Your task to perform on an android device: toggle data saver in the chrome app Image 0: 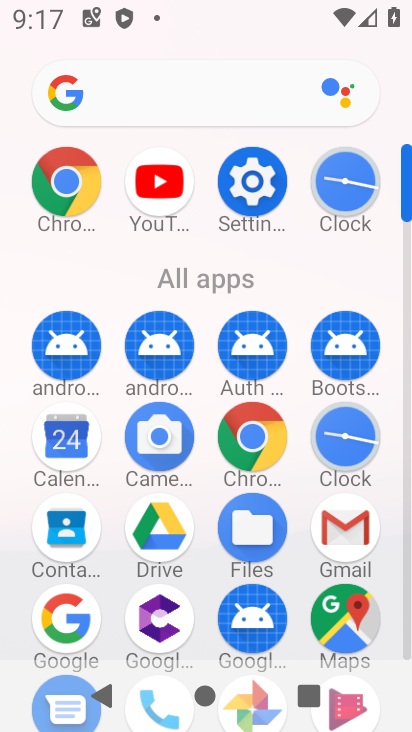
Step 0: press home button
Your task to perform on an android device: toggle data saver in the chrome app Image 1: 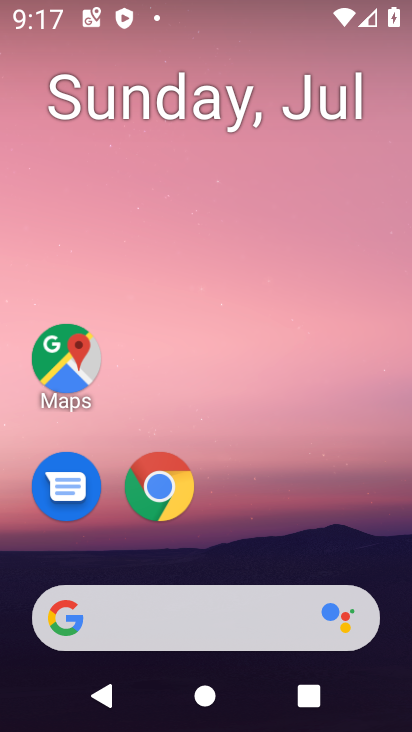
Step 1: drag from (332, 544) to (366, 98)
Your task to perform on an android device: toggle data saver in the chrome app Image 2: 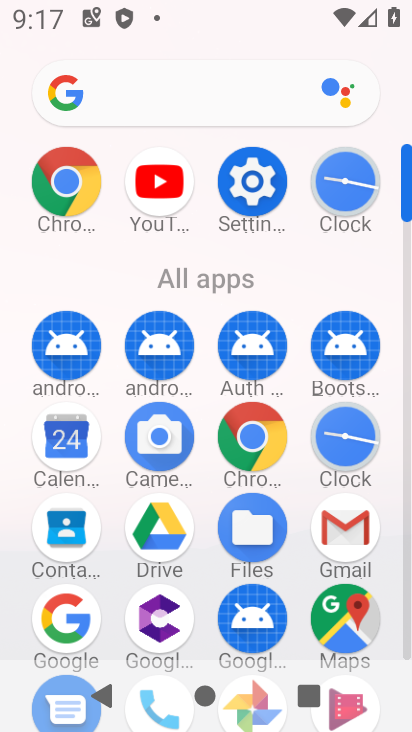
Step 2: click (255, 435)
Your task to perform on an android device: toggle data saver in the chrome app Image 3: 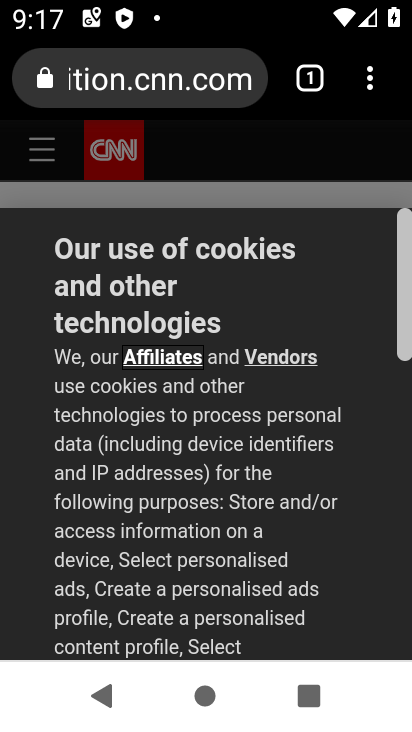
Step 3: click (367, 90)
Your task to perform on an android device: toggle data saver in the chrome app Image 4: 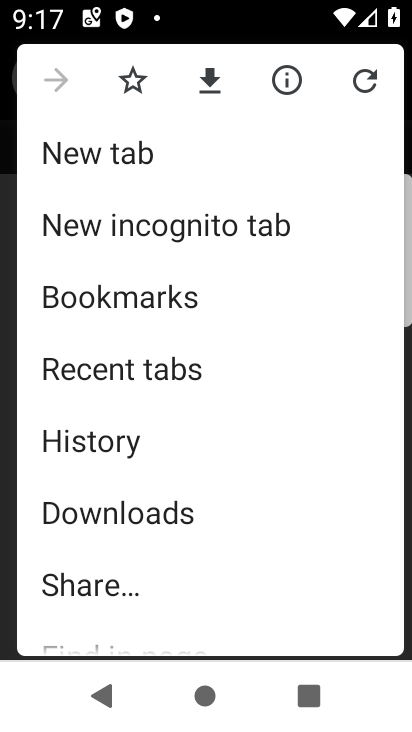
Step 4: drag from (318, 442) to (320, 332)
Your task to perform on an android device: toggle data saver in the chrome app Image 5: 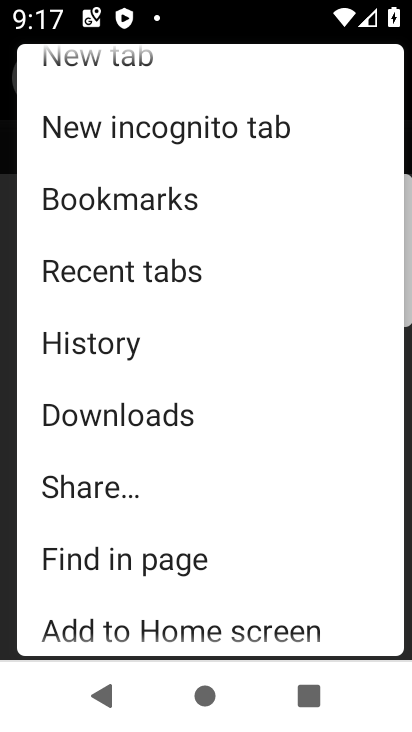
Step 5: drag from (309, 535) to (319, 420)
Your task to perform on an android device: toggle data saver in the chrome app Image 6: 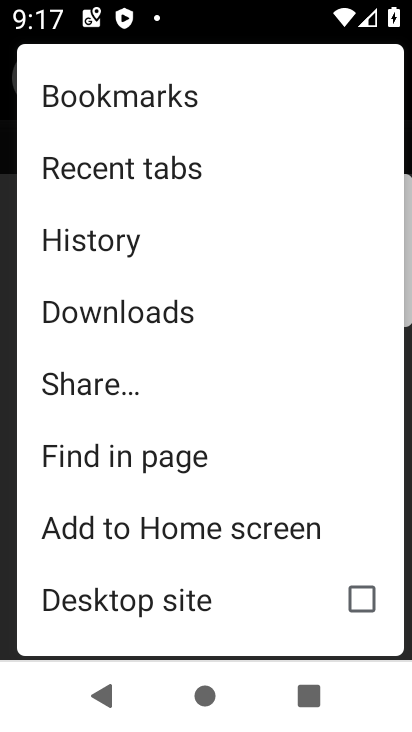
Step 6: drag from (279, 583) to (286, 442)
Your task to perform on an android device: toggle data saver in the chrome app Image 7: 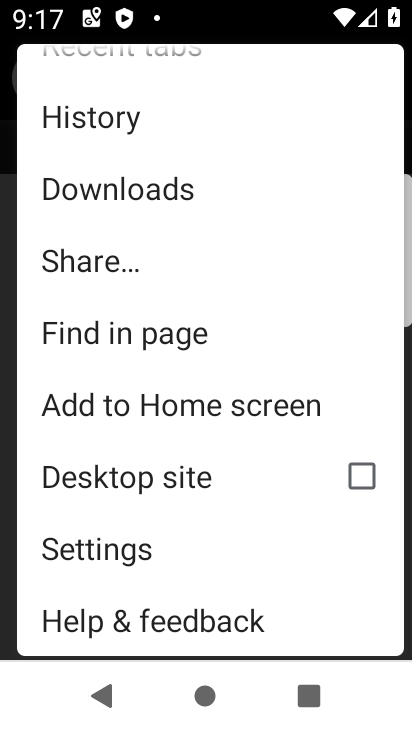
Step 7: drag from (262, 575) to (266, 445)
Your task to perform on an android device: toggle data saver in the chrome app Image 8: 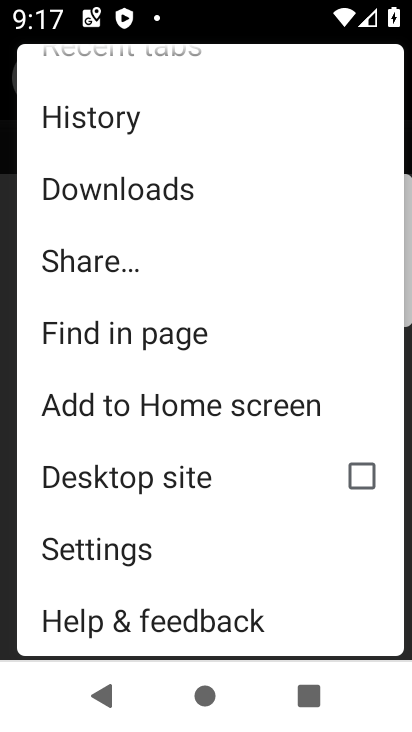
Step 8: click (145, 562)
Your task to perform on an android device: toggle data saver in the chrome app Image 9: 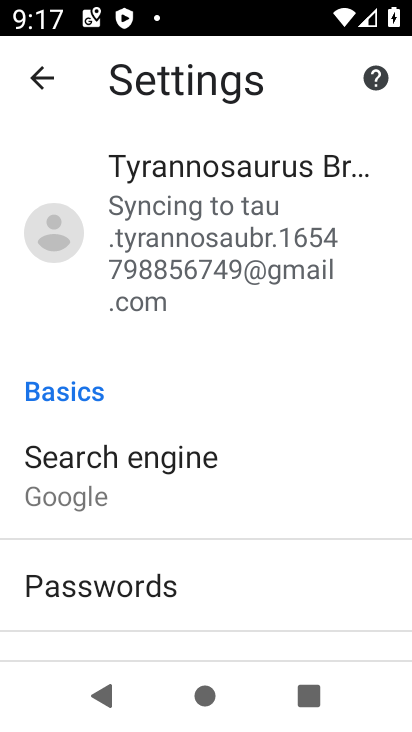
Step 9: drag from (308, 545) to (311, 460)
Your task to perform on an android device: toggle data saver in the chrome app Image 10: 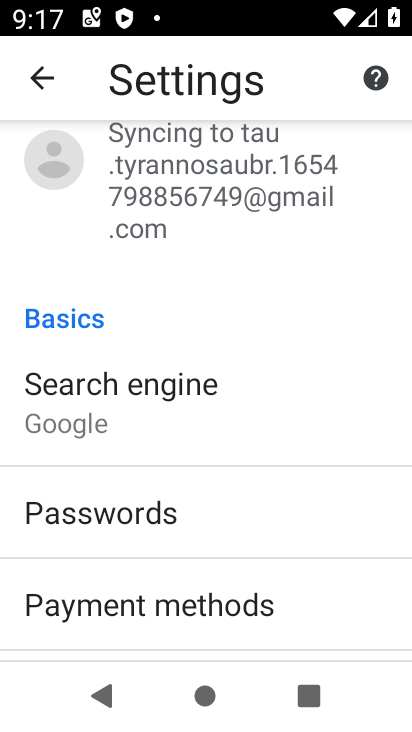
Step 10: drag from (329, 582) to (326, 484)
Your task to perform on an android device: toggle data saver in the chrome app Image 11: 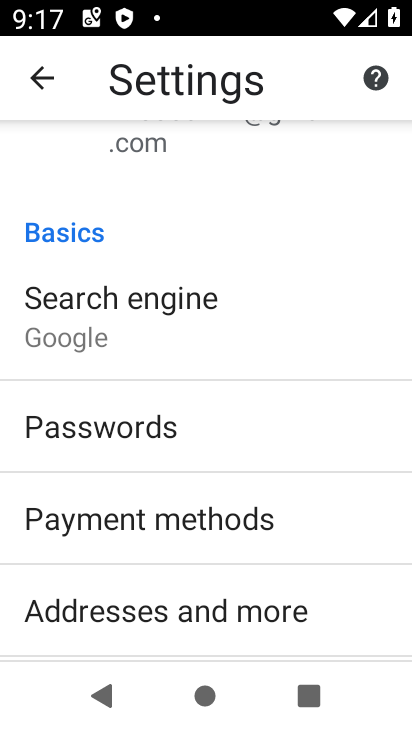
Step 11: drag from (327, 577) to (327, 469)
Your task to perform on an android device: toggle data saver in the chrome app Image 12: 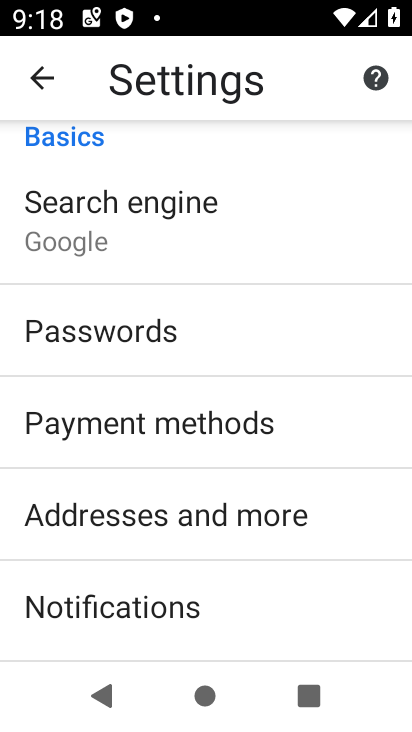
Step 12: drag from (344, 570) to (331, 426)
Your task to perform on an android device: toggle data saver in the chrome app Image 13: 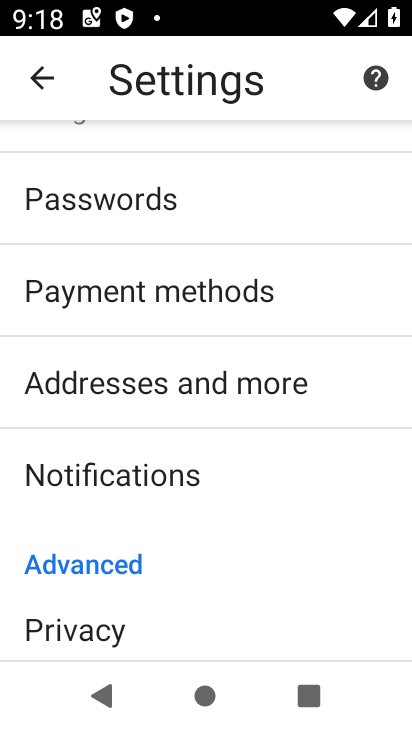
Step 13: drag from (303, 549) to (311, 412)
Your task to perform on an android device: toggle data saver in the chrome app Image 14: 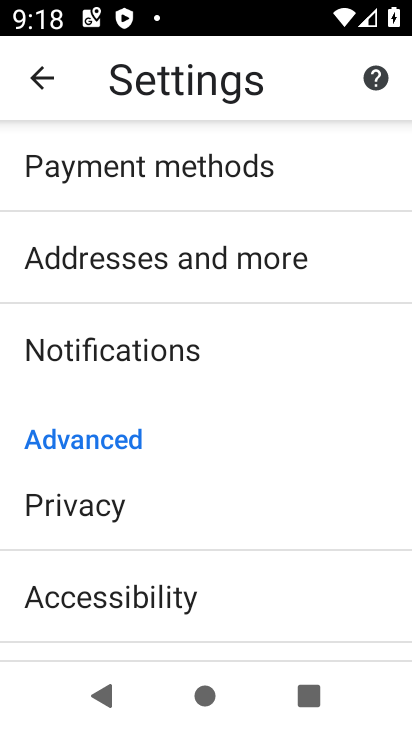
Step 14: drag from (287, 590) to (290, 460)
Your task to perform on an android device: toggle data saver in the chrome app Image 15: 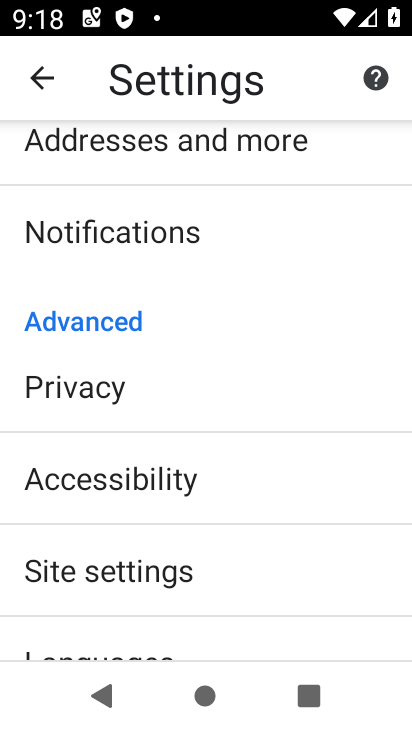
Step 15: drag from (289, 620) to (296, 490)
Your task to perform on an android device: toggle data saver in the chrome app Image 16: 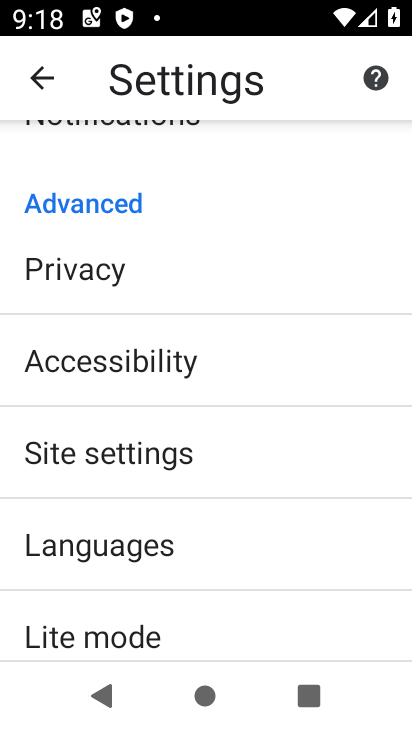
Step 16: drag from (279, 625) to (288, 521)
Your task to perform on an android device: toggle data saver in the chrome app Image 17: 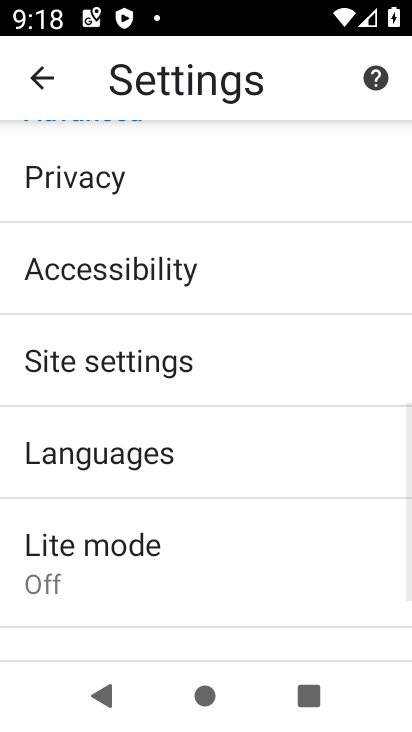
Step 17: click (288, 569)
Your task to perform on an android device: toggle data saver in the chrome app Image 18: 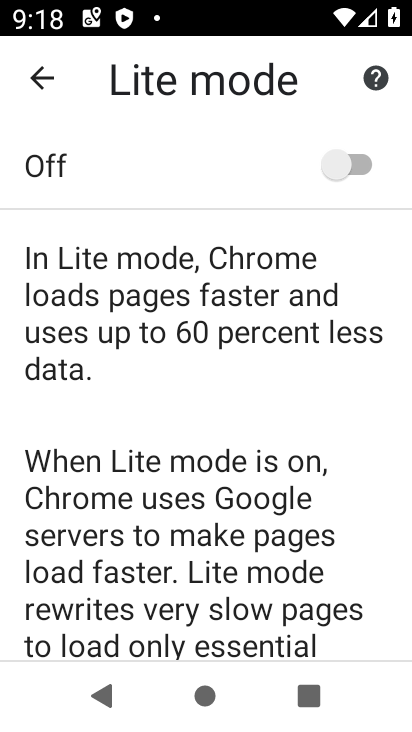
Step 18: click (329, 168)
Your task to perform on an android device: toggle data saver in the chrome app Image 19: 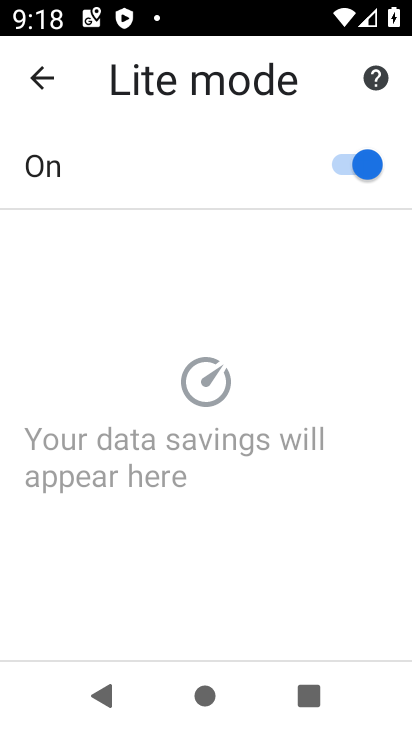
Step 19: task complete